Your task to perform on an android device: check storage Image 0: 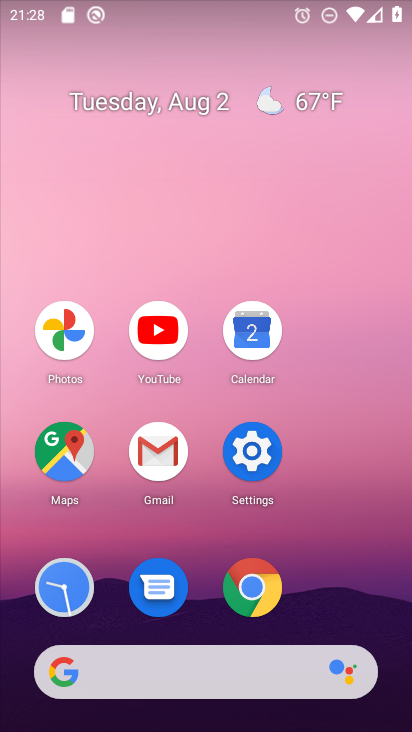
Step 0: click (253, 444)
Your task to perform on an android device: check storage Image 1: 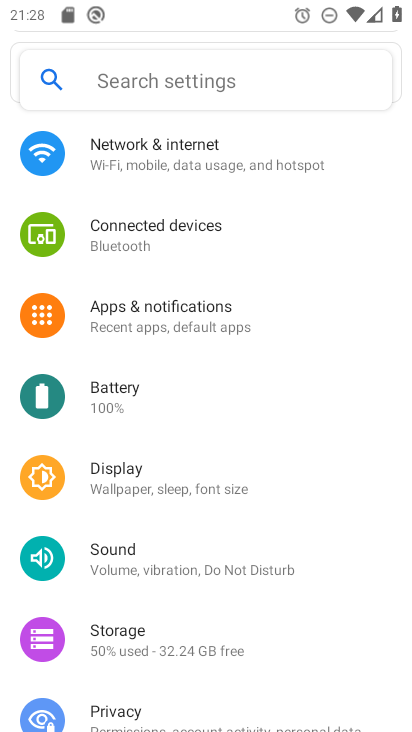
Step 1: click (118, 632)
Your task to perform on an android device: check storage Image 2: 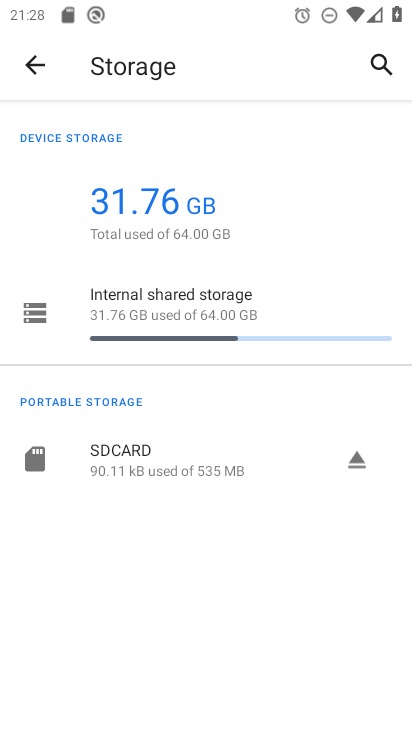
Step 2: task complete